Your task to perform on an android device: see tabs open on other devices in the chrome app Image 0: 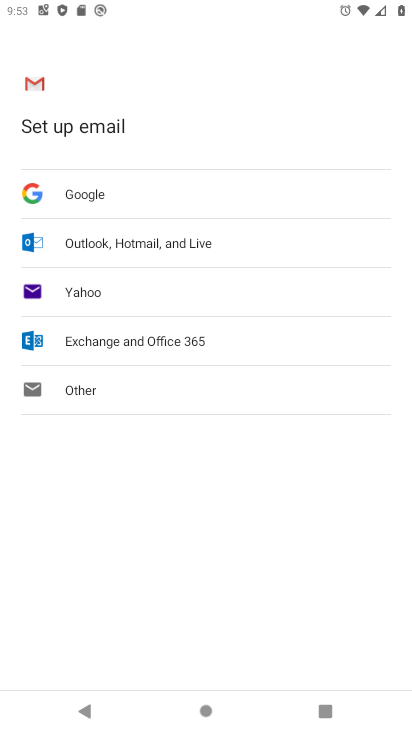
Step 0: press back button
Your task to perform on an android device: see tabs open on other devices in the chrome app Image 1: 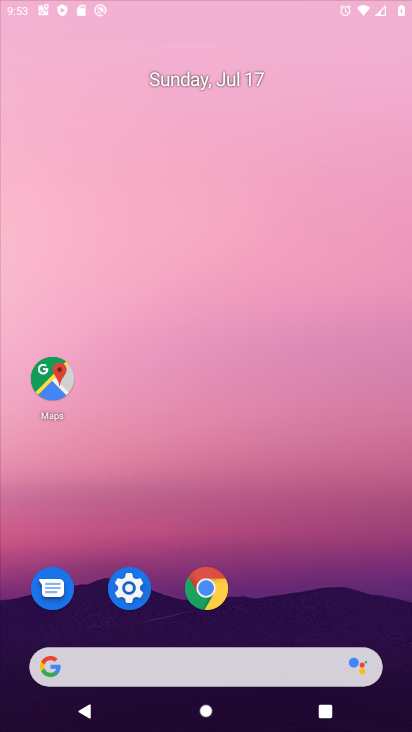
Step 1: drag from (166, 354) to (161, 198)
Your task to perform on an android device: see tabs open on other devices in the chrome app Image 2: 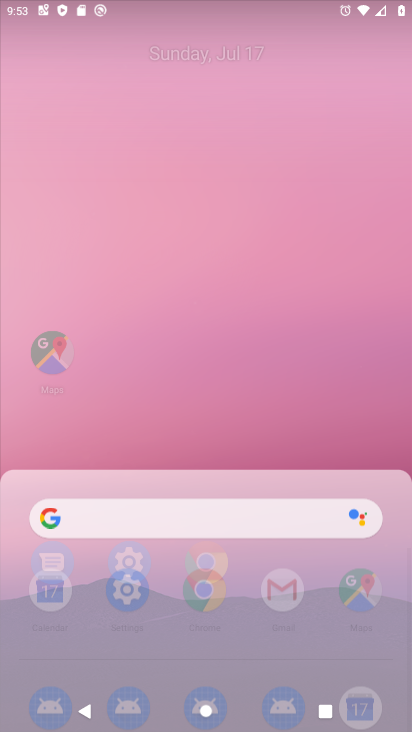
Step 2: drag from (233, 552) to (239, 102)
Your task to perform on an android device: see tabs open on other devices in the chrome app Image 3: 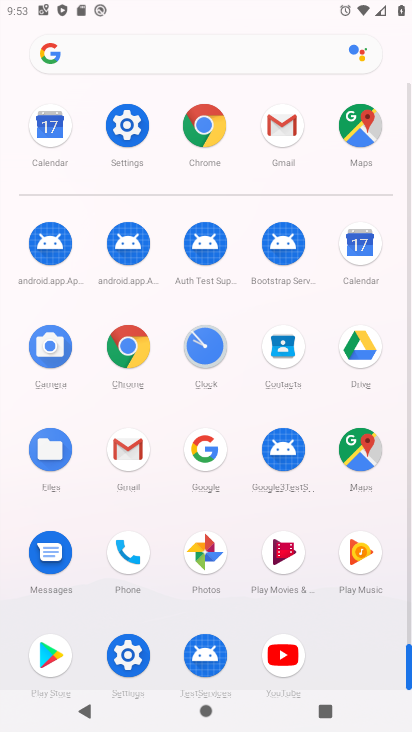
Step 3: click (192, 90)
Your task to perform on an android device: see tabs open on other devices in the chrome app Image 4: 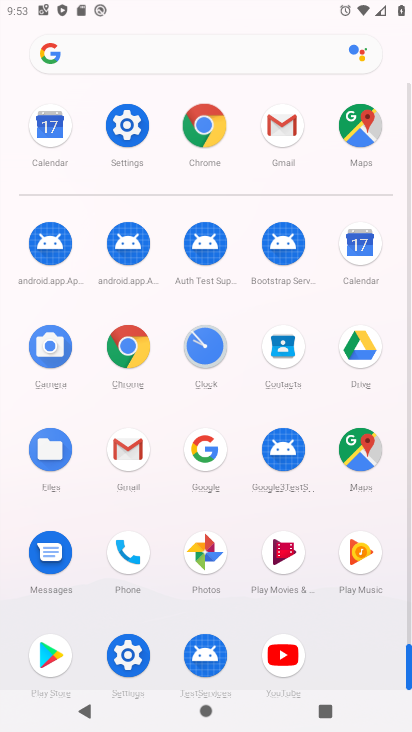
Step 4: click (194, 151)
Your task to perform on an android device: see tabs open on other devices in the chrome app Image 5: 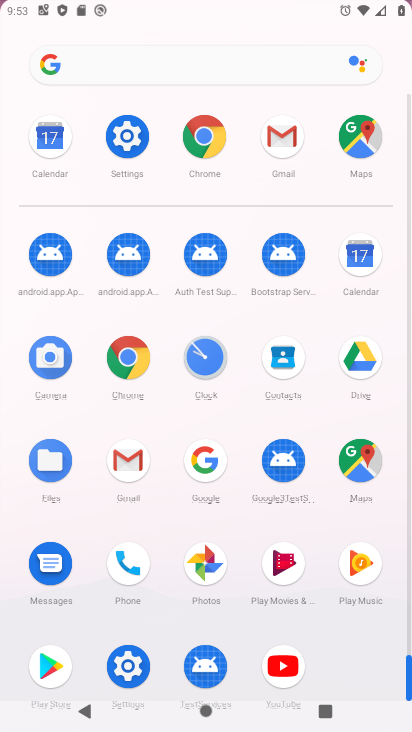
Step 5: click (195, 156)
Your task to perform on an android device: see tabs open on other devices in the chrome app Image 6: 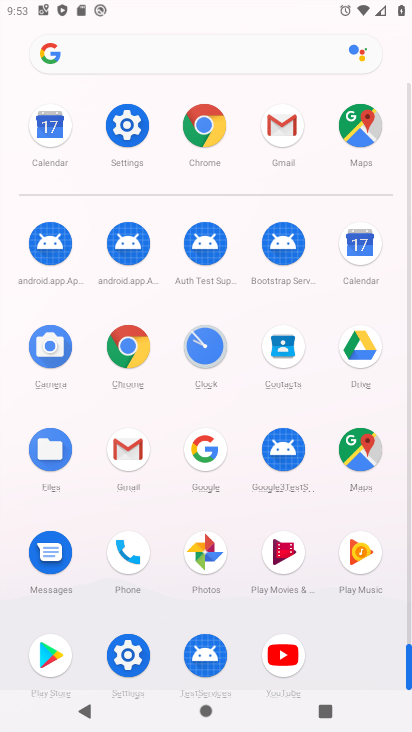
Step 6: click (195, 156)
Your task to perform on an android device: see tabs open on other devices in the chrome app Image 7: 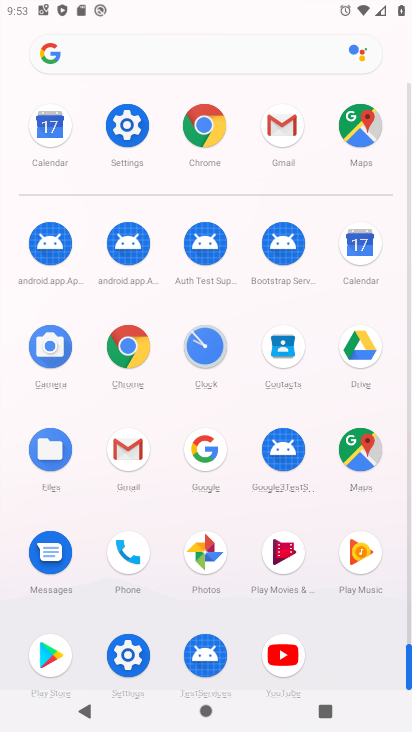
Step 7: click (201, 124)
Your task to perform on an android device: see tabs open on other devices in the chrome app Image 8: 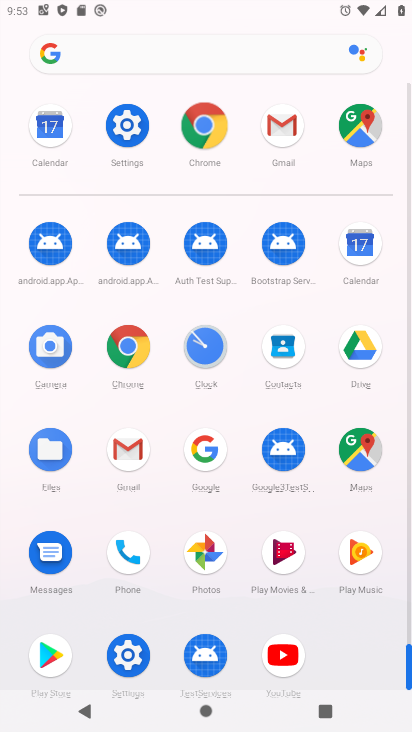
Step 8: click (201, 124)
Your task to perform on an android device: see tabs open on other devices in the chrome app Image 9: 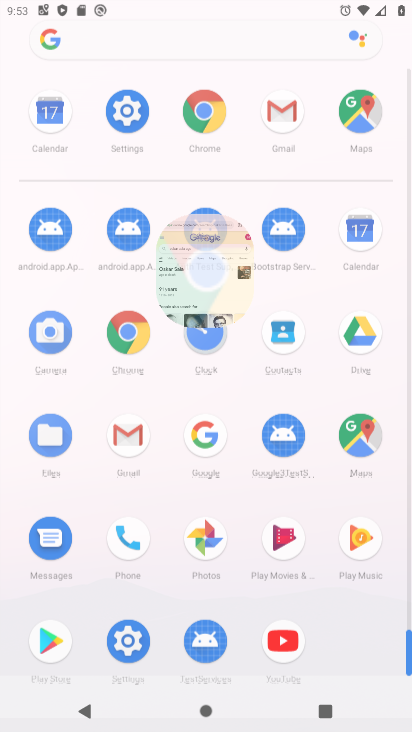
Step 9: click (200, 124)
Your task to perform on an android device: see tabs open on other devices in the chrome app Image 10: 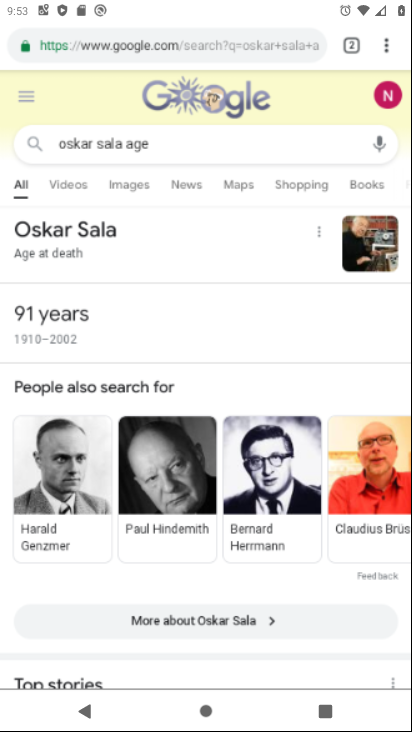
Step 10: click (200, 128)
Your task to perform on an android device: see tabs open on other devices in the chrome app Image 11: 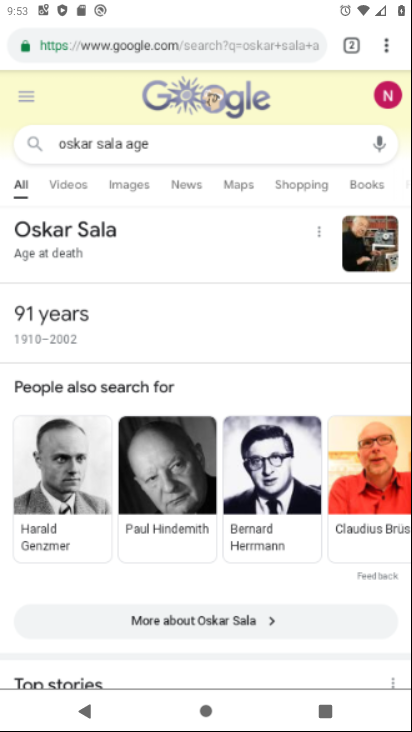
Step 11: click (200, 130)
Your task to perform on an android device: see tabs open on other devices in the chrome app Image 12: 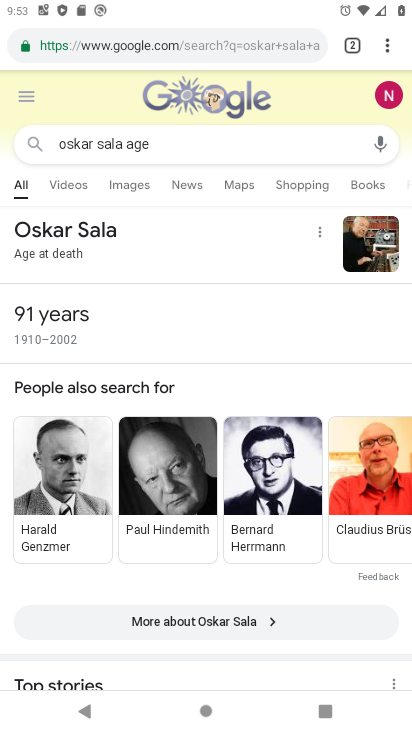
Step 12: drag from (375, 47) to (221, 229)
Your task to perform on an android device: see tabs open on other devices in the chrome app Image 13: 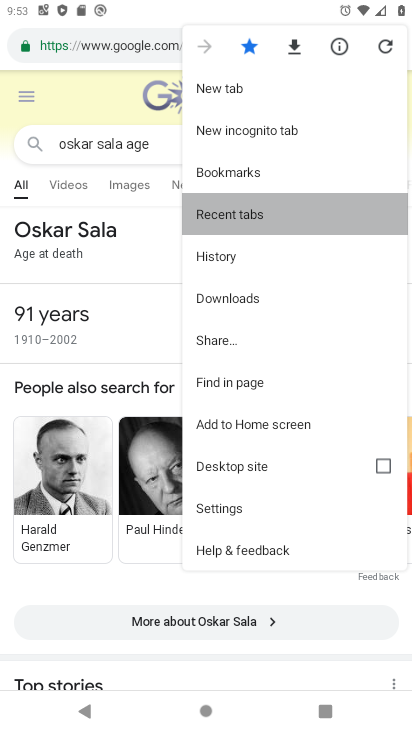
Step 13: click (221, 229)
Your task to perform on an android device: see tabs open on other devices in the chrome app Image 14: 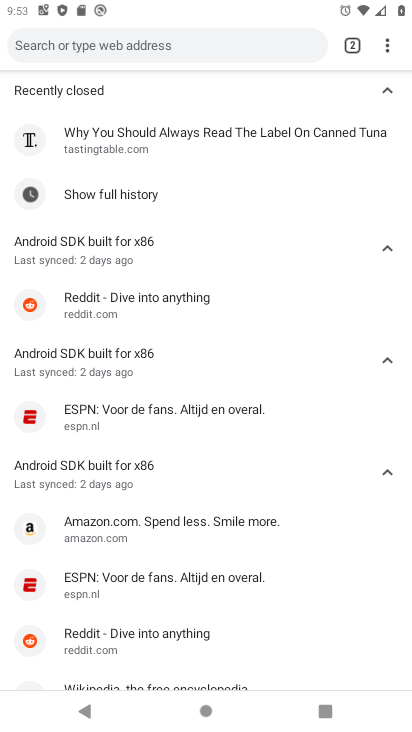
Step 14: task complete